Your task to perform on an android device: read, delete, or share a saved page in the chrome app Image 0: 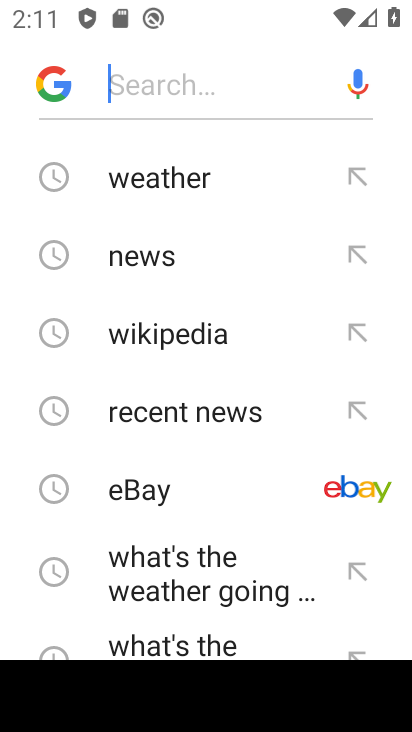
Step 0: press back button
Your task to perform on an android device: read, delete, or share a saved page in the chrome app Image 1: 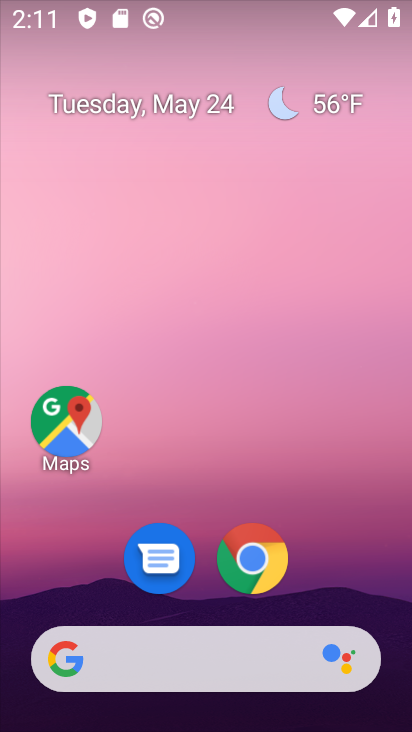
Step 1: click (277, 565)
Your task to perform on an android device: read, delete, or share a saved page in the chrome app Image 2: 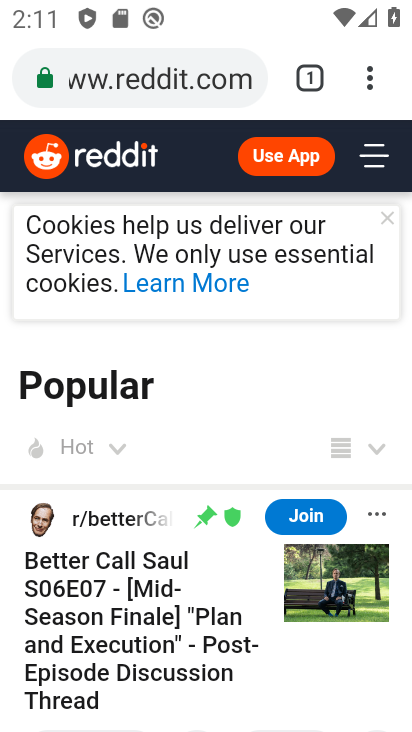
Step 2: drag from (364, 87) to (260, 589)
Your task to perform on an android device: read, delete, or share a saved page in the chrome app Image 3: 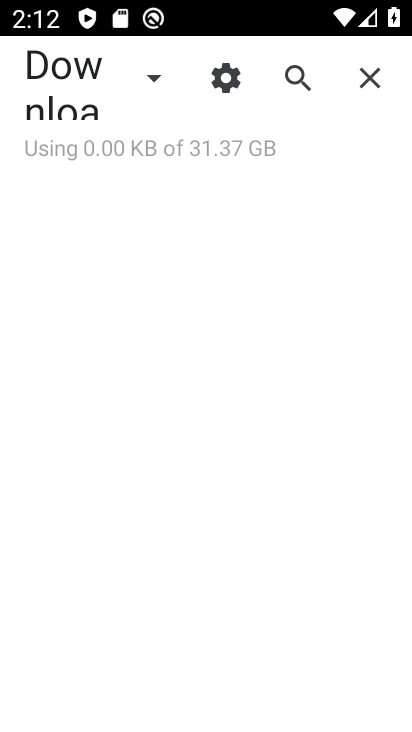
Step 3: click (107, 92)
Your task to perform on an android device: read, delete, or share a saved page in the chrome app Image 4: 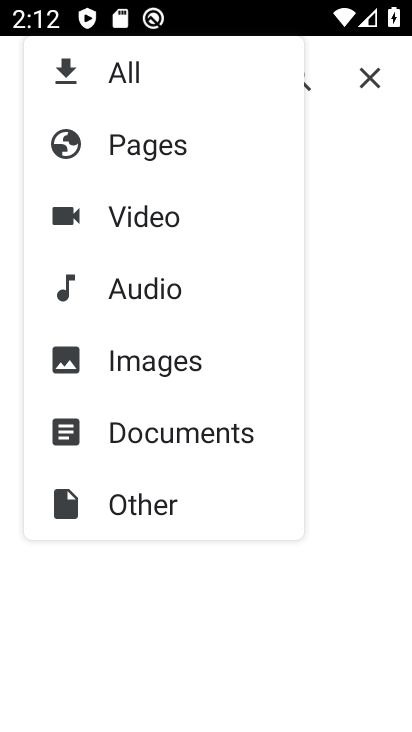
Step 4: click (207, 154)
Your task to perform on an android device: read, delete, or share a saved page in the chrome app Image 5: 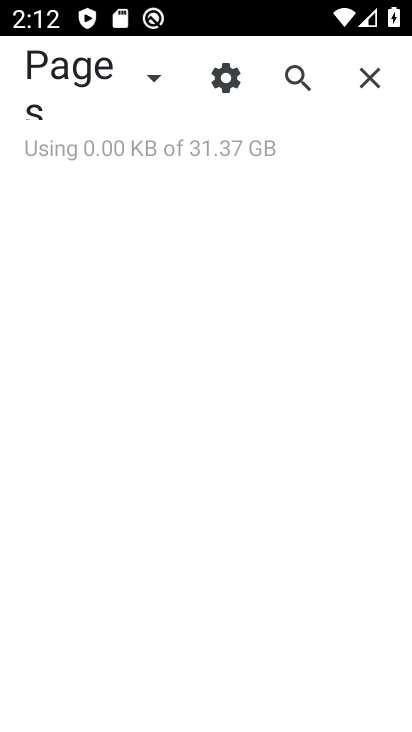
Step 5: task complete